Your task to perform on an android device: Go to Yahoo.com Image 0: 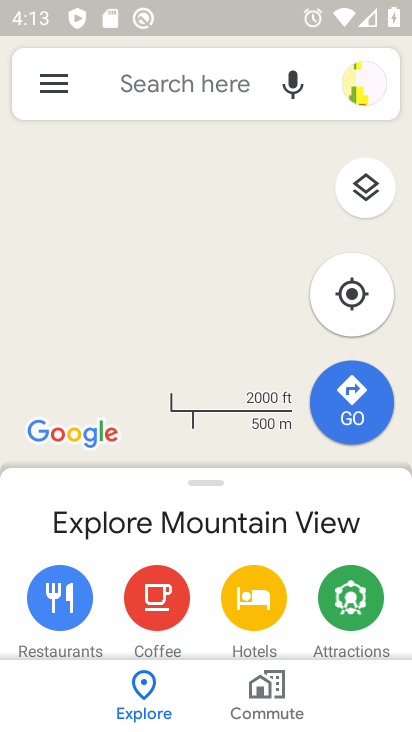
Step 0: press home button
Your task to perform on an android device: Go to Yahoo.com Image 1: 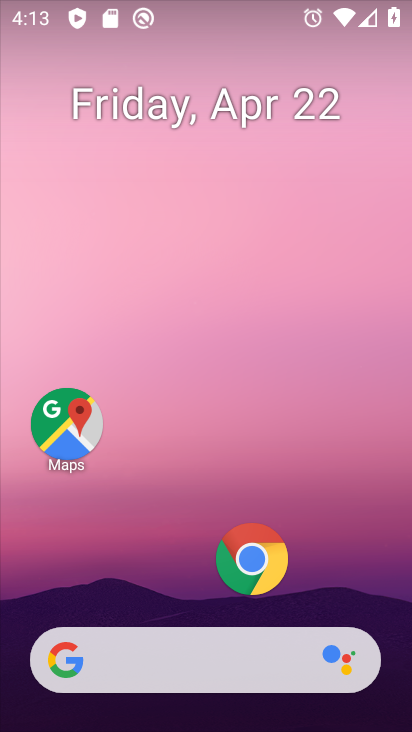
Step 1: click (245, 543)
Your task to perform on an android device: Go to Yahoo.com Image 2: 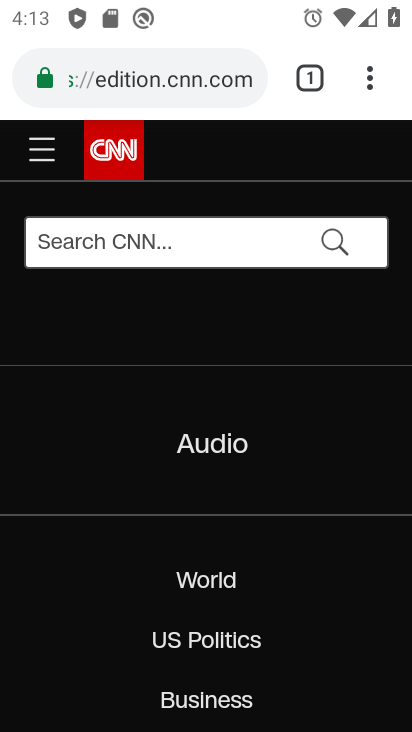
Step 2: click (190, 88)
Your task to perform on an android device: Go to Yahoo.com Image 3: 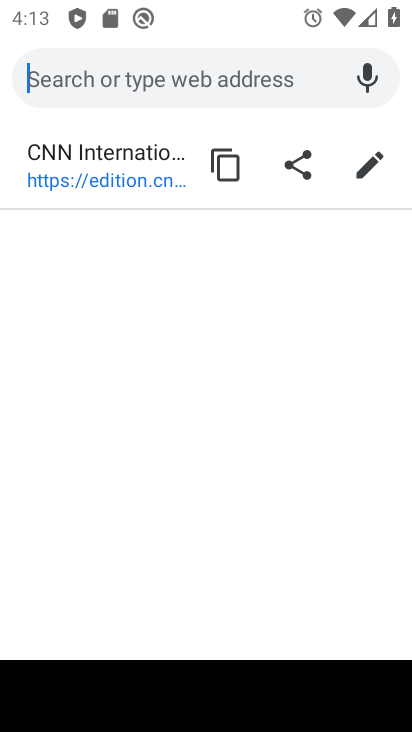
Step 3: type "yahoo.com"
Your task to perform on an android device: Go to Yahoo.com Image 4: 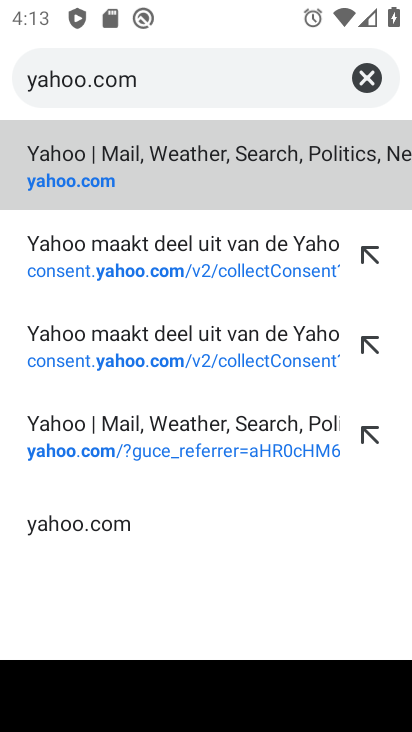
Step 4: click (133, 175)
Your task to perform on an android device: Go to Yahoo.com Image 5: 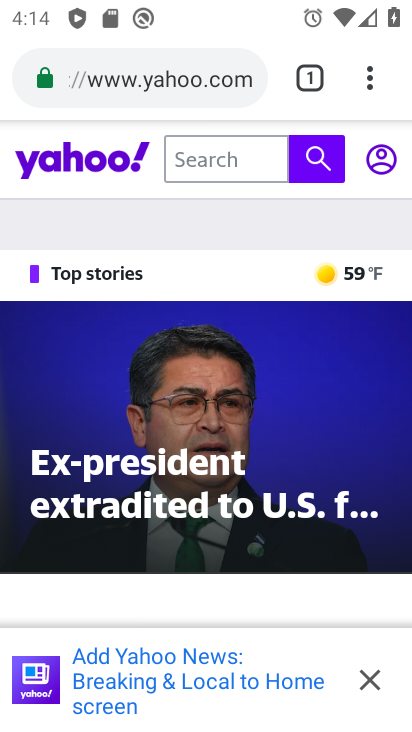
Step 5: task complete